Your task to perform on an android device: delete location history Image 0: 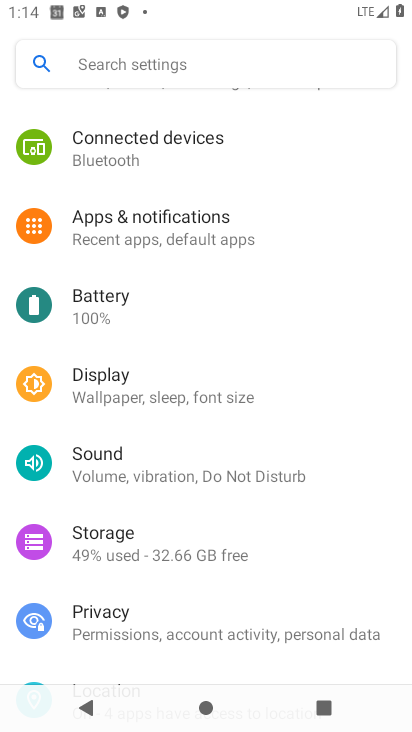
Step 0: press home button
Your task to perform on an android device: delete location history Image 1: 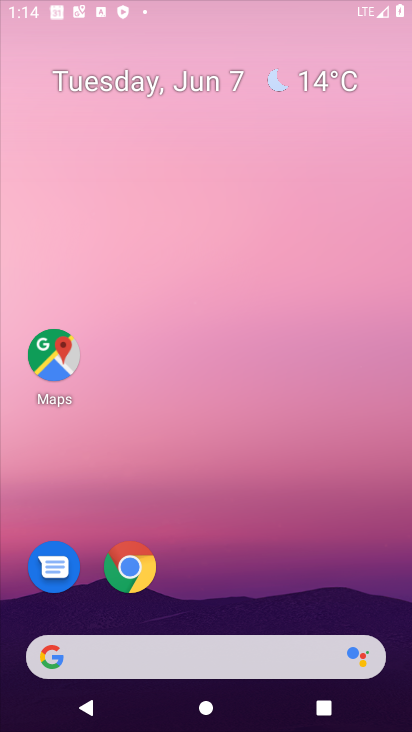
Step 1: drag from (225, 649) to (237, 53)
Your task to perform on an android device: delete location history Image 2: 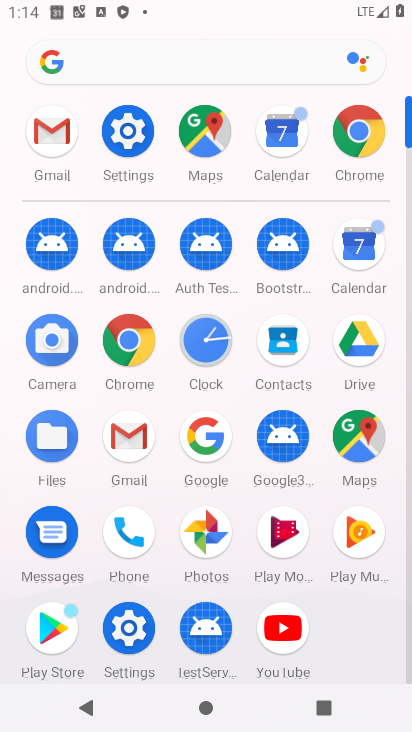
Step 2: click (366, 446)
Your task to perform on an android device: delete location history Image 3: 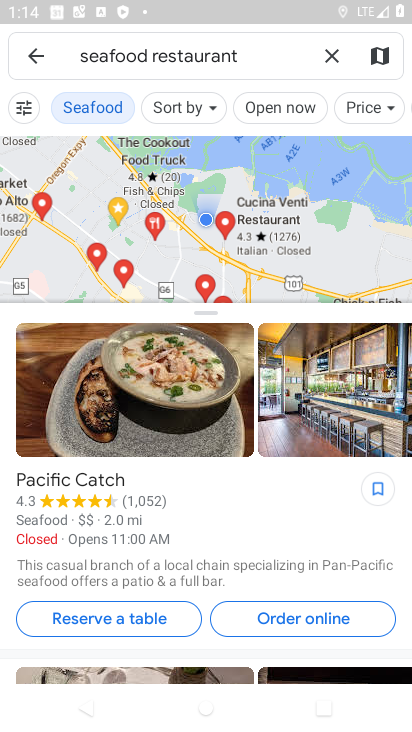
Step 3: press back button
Your task to perform on an android device: delete location history Image 4: 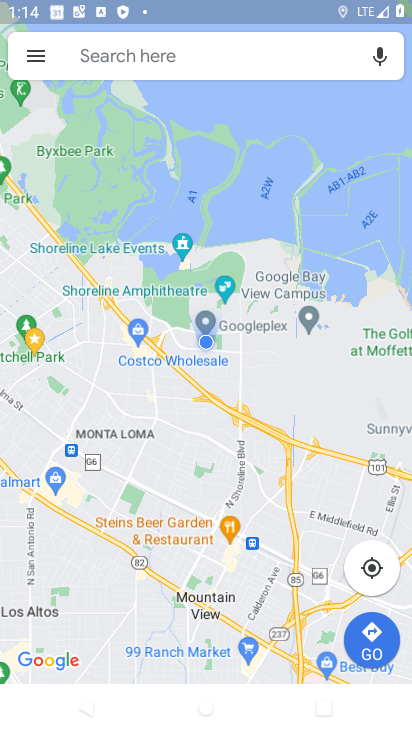
Step 4: click (40, 51)
Your task to perform on an android device: delete location history Image 5: 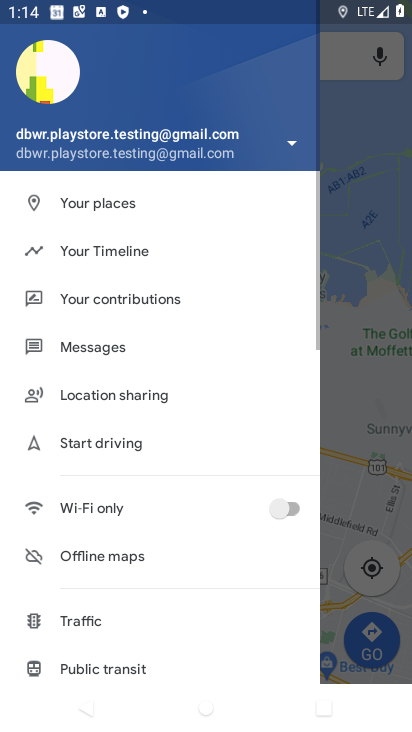
Step 5: click (151, 248)
Your task to perform on an android device: delete location history Image 6: 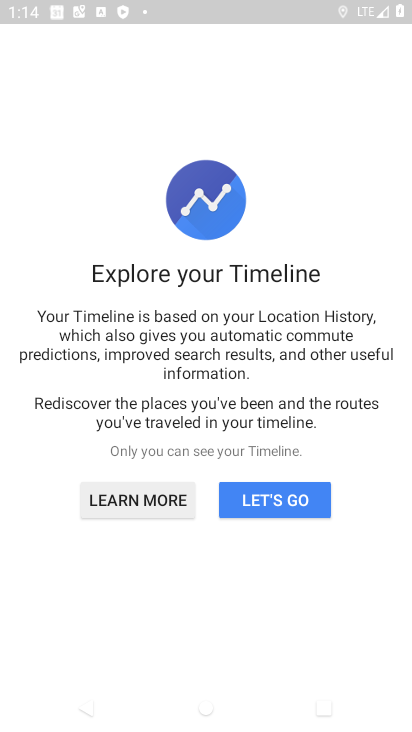
Step 6: click (263, 497)
Your task to perform on an android device: delete location history Image 7: 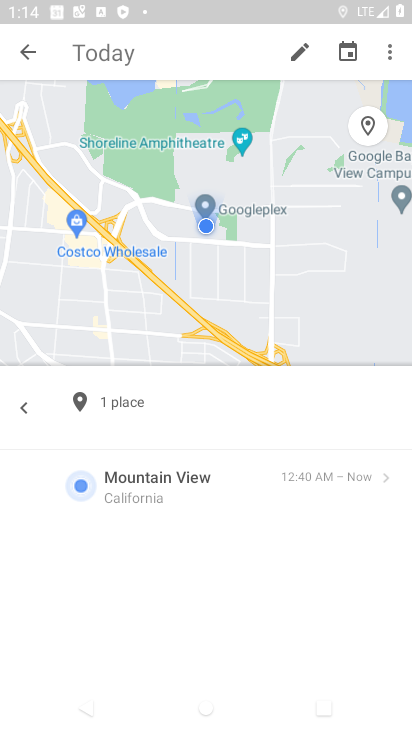
Step 7: click (391, 45)
Your task to perform on an android device: delete location history Image 8: 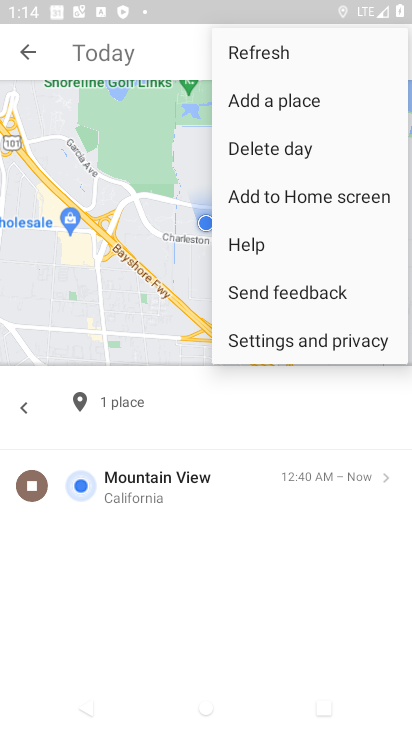
Step 8: click (288, 344)
Your task to perform on an android device: delete location history Image 9: 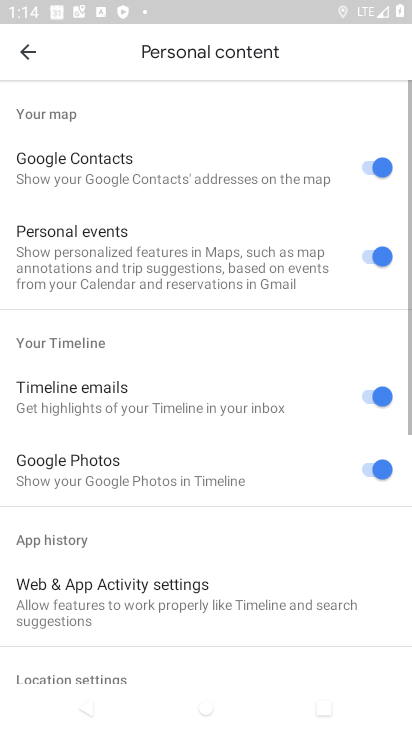
Step 9: drag from (252, 559) to (283, 95)
Your task to perform on an android device: delete location history Image 10: 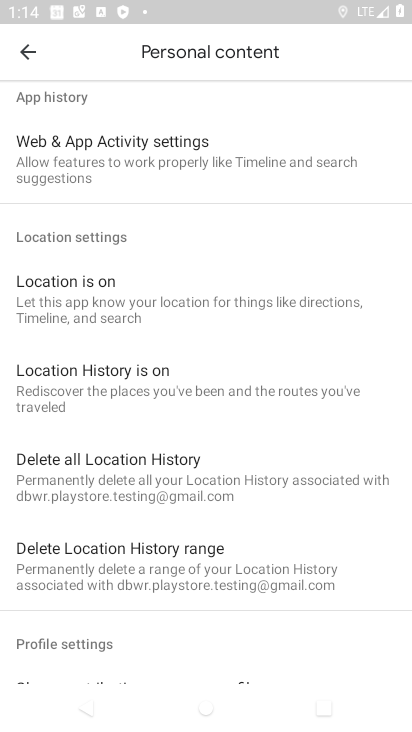
Step 10: click (214, 485)
Your task to perform on an android device: delete location history Image 11: 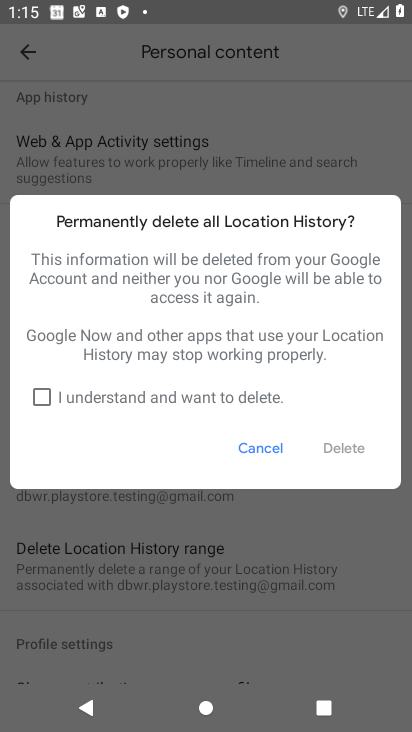
Step 11: click (51, 395)
Your task to perform on an android device: delete location history Image 12: 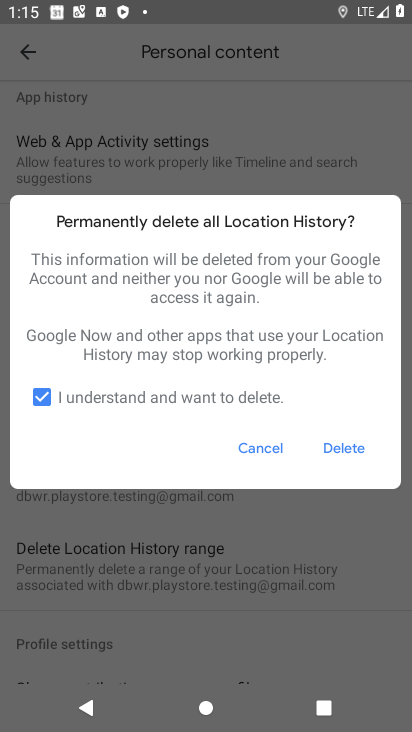
Step 12: click (355, 449)
Your task to perform on an android device: delete location history Image 13: 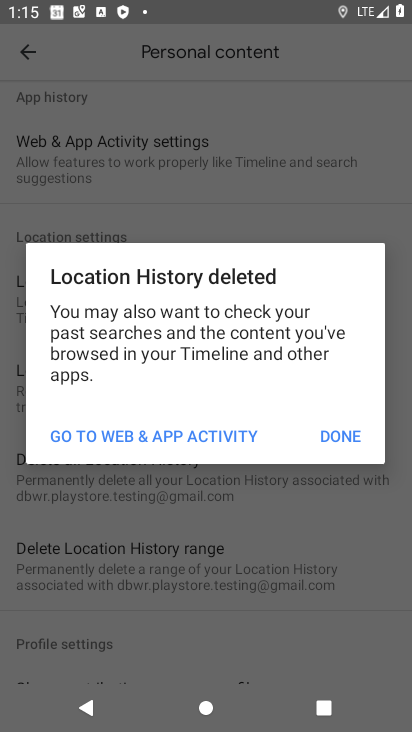
Step 13: click (339, 429)
Your task to perform on an android device: delete location history Image 14: 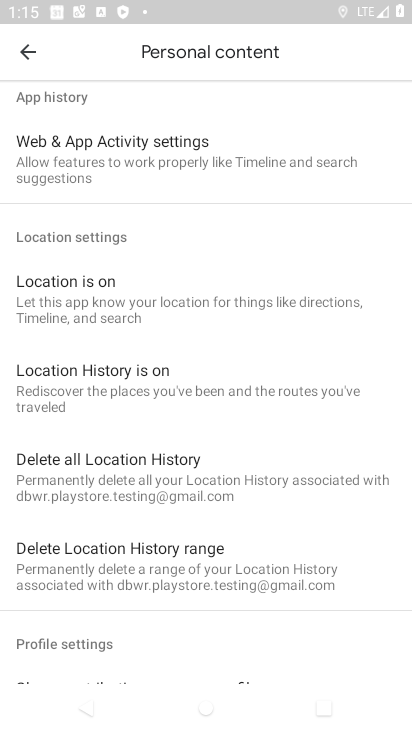
Step 14: task complete